Your task to perform on an android device: Go to sound settings Image 0: 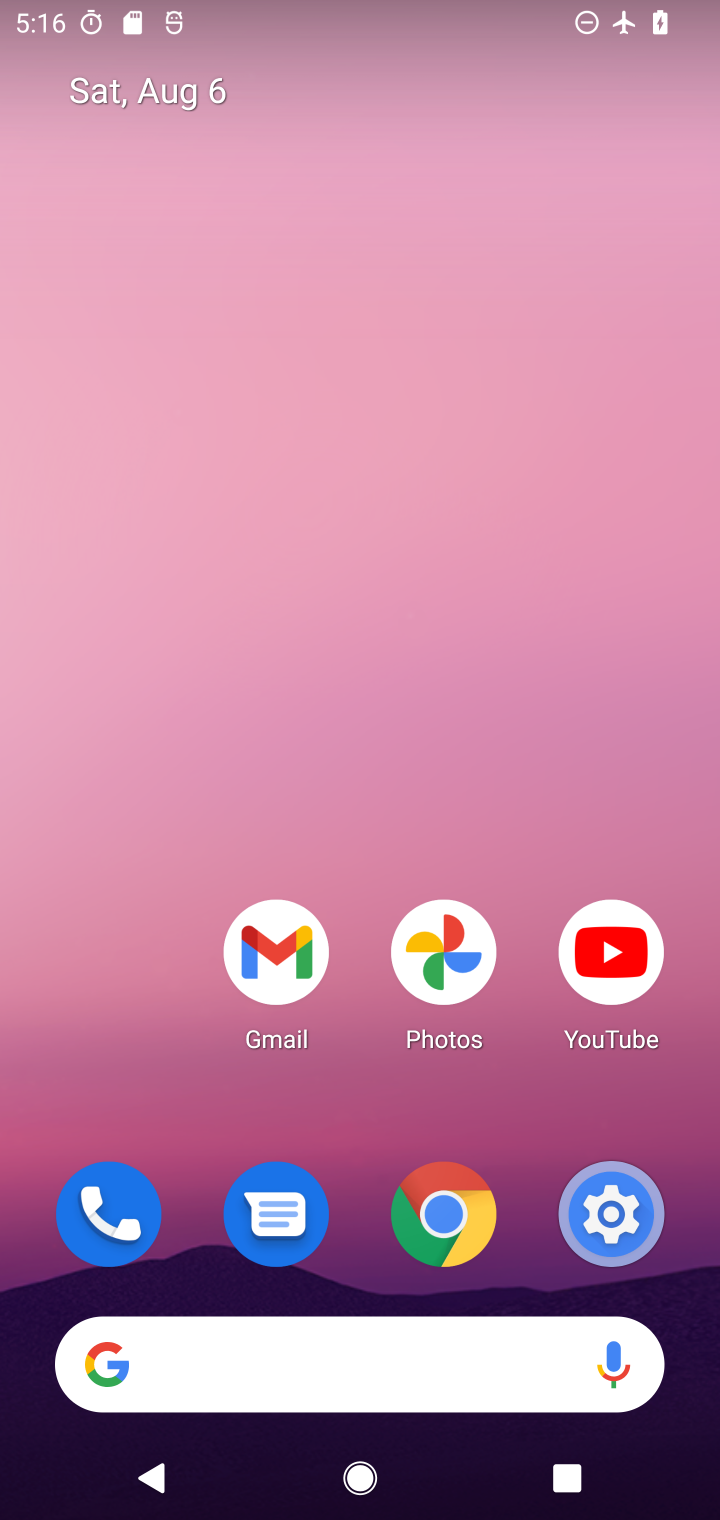
Step 0: click (590, 1253)
Your task to perform on an android device: Go to sound settings Image 1: 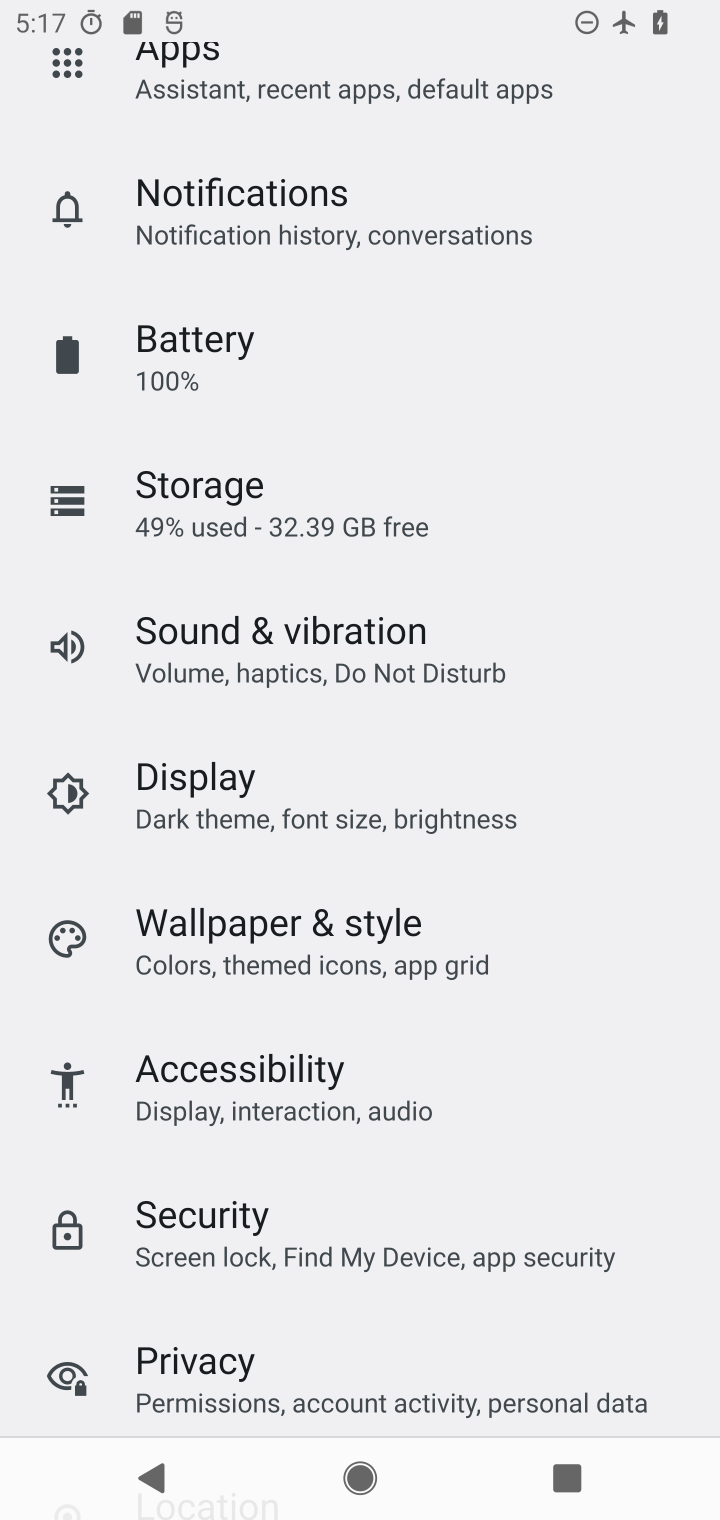
Step 1: drag from (374, 1165) to (377, 1242)
Your task to perform on an android device: Go to sound settings Image 2: 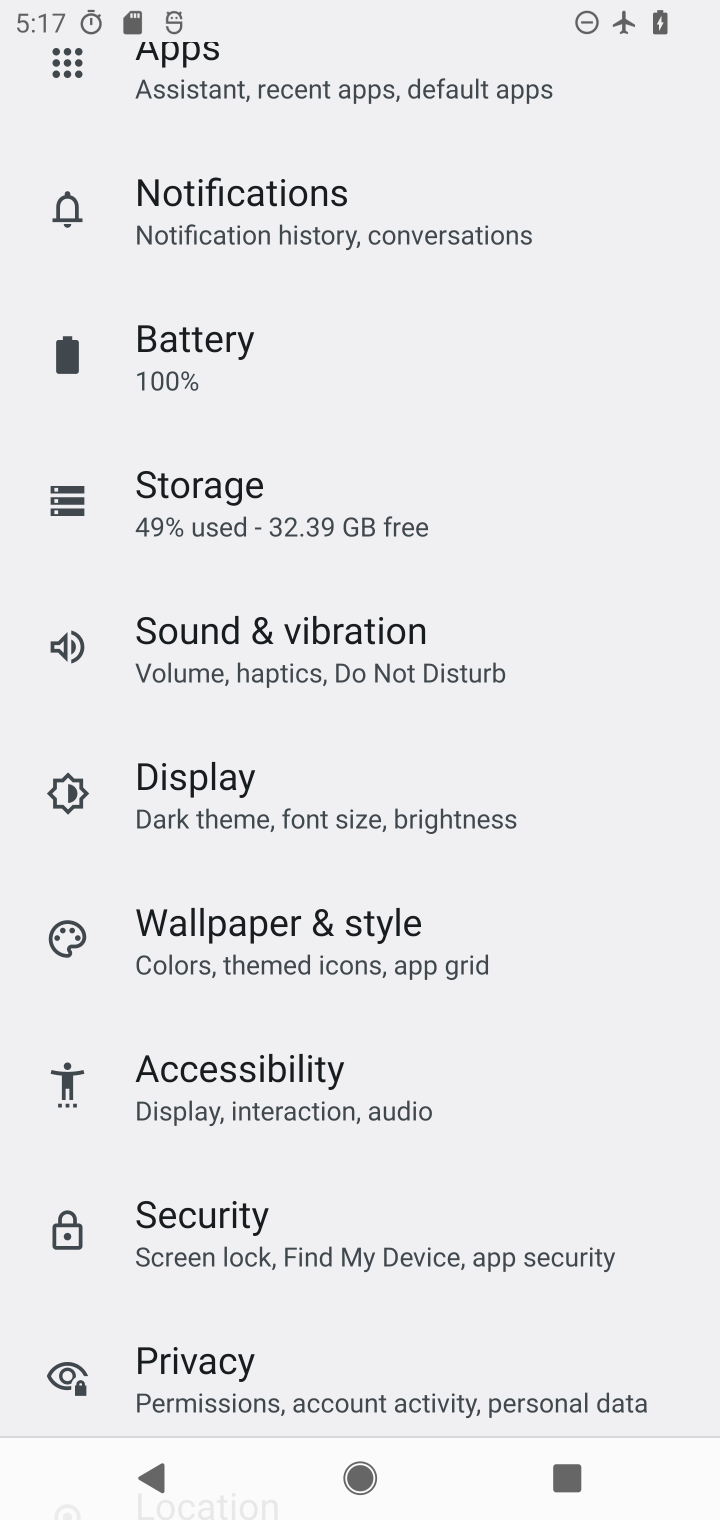
Step 2: drag from (411, 1029) to (413, 1464)
Your task to perform on an android device: Go to sound settings Image 3: 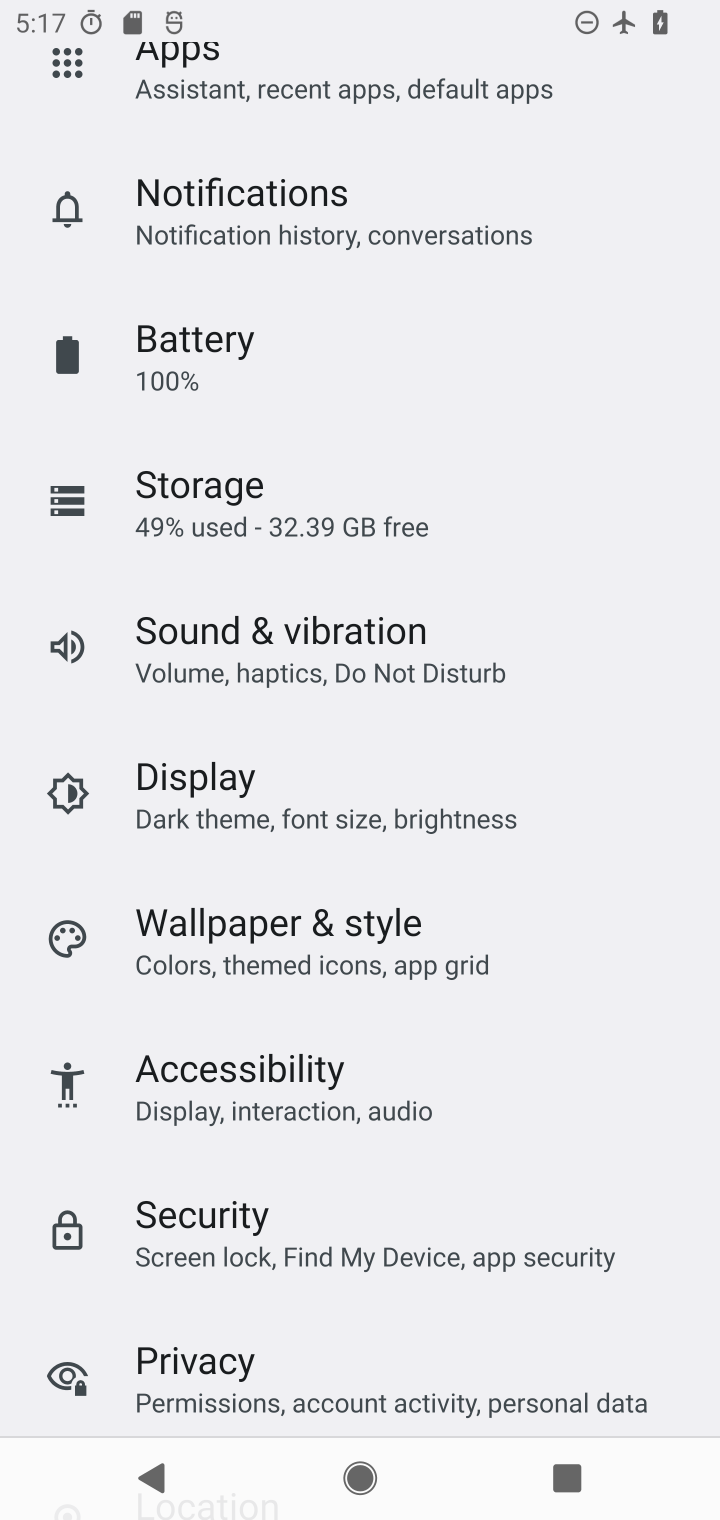
Step 3: drag from (405, 767) to (407, 1217)
Your task to perform on an android device: Go to sound settings Image 4: 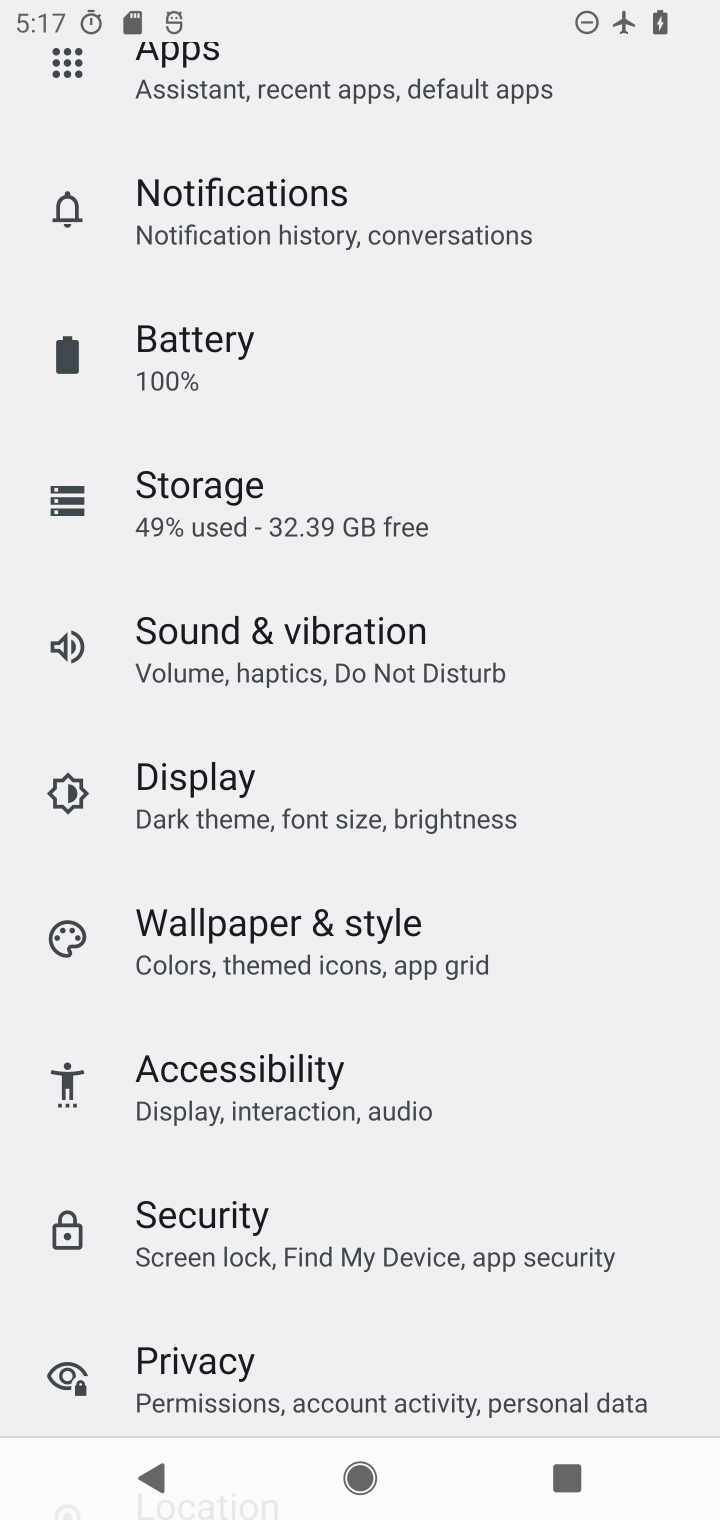
Step 4: drag from (330, 381) to (233, 1473)
Your task to perform on an android device: Go to sound settings Image 5: 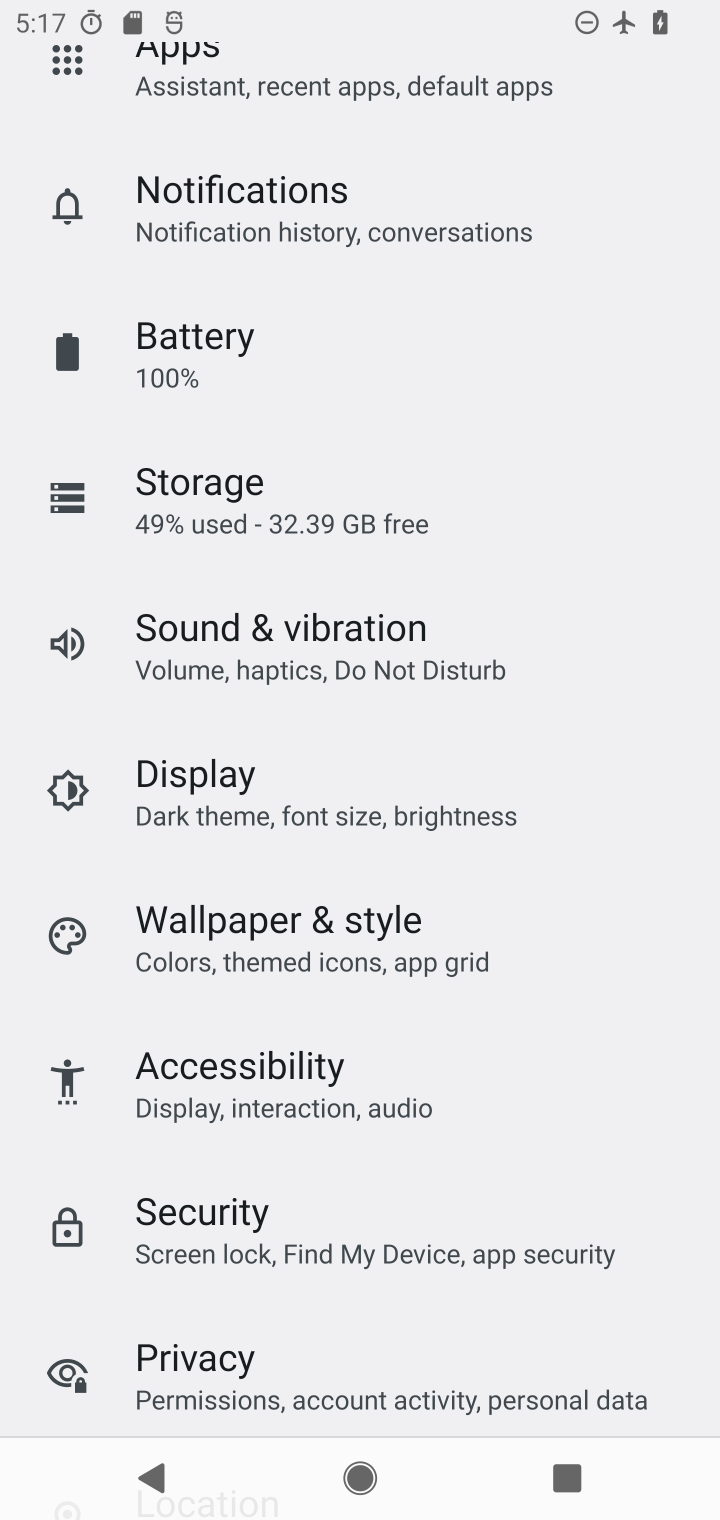
Step 5: drag from (300, 433) to (313, 737)
Your task to perform on an android device: Go to sound settings Image 6: 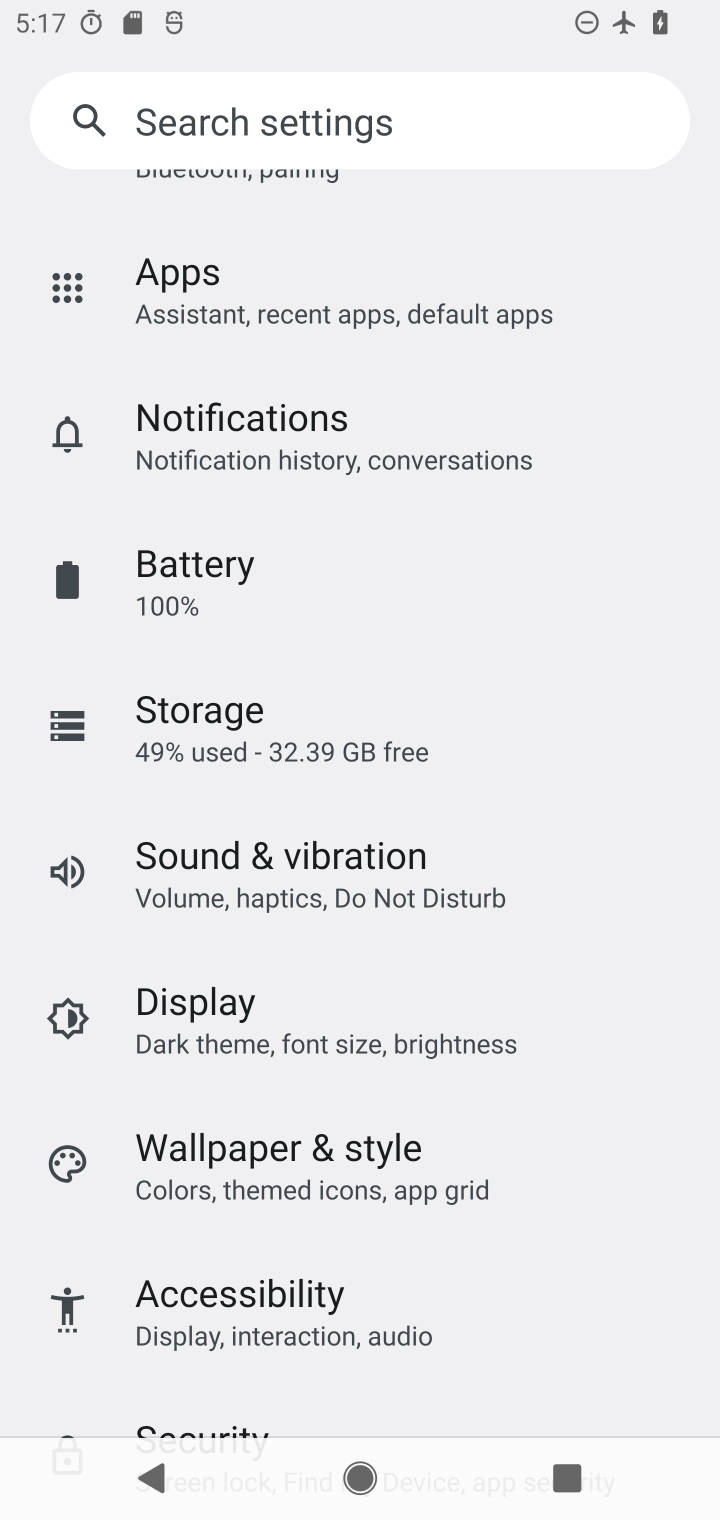
Step 6: click (243, 889)
Your task to perform on an android device: Go to sound settings Image 7: 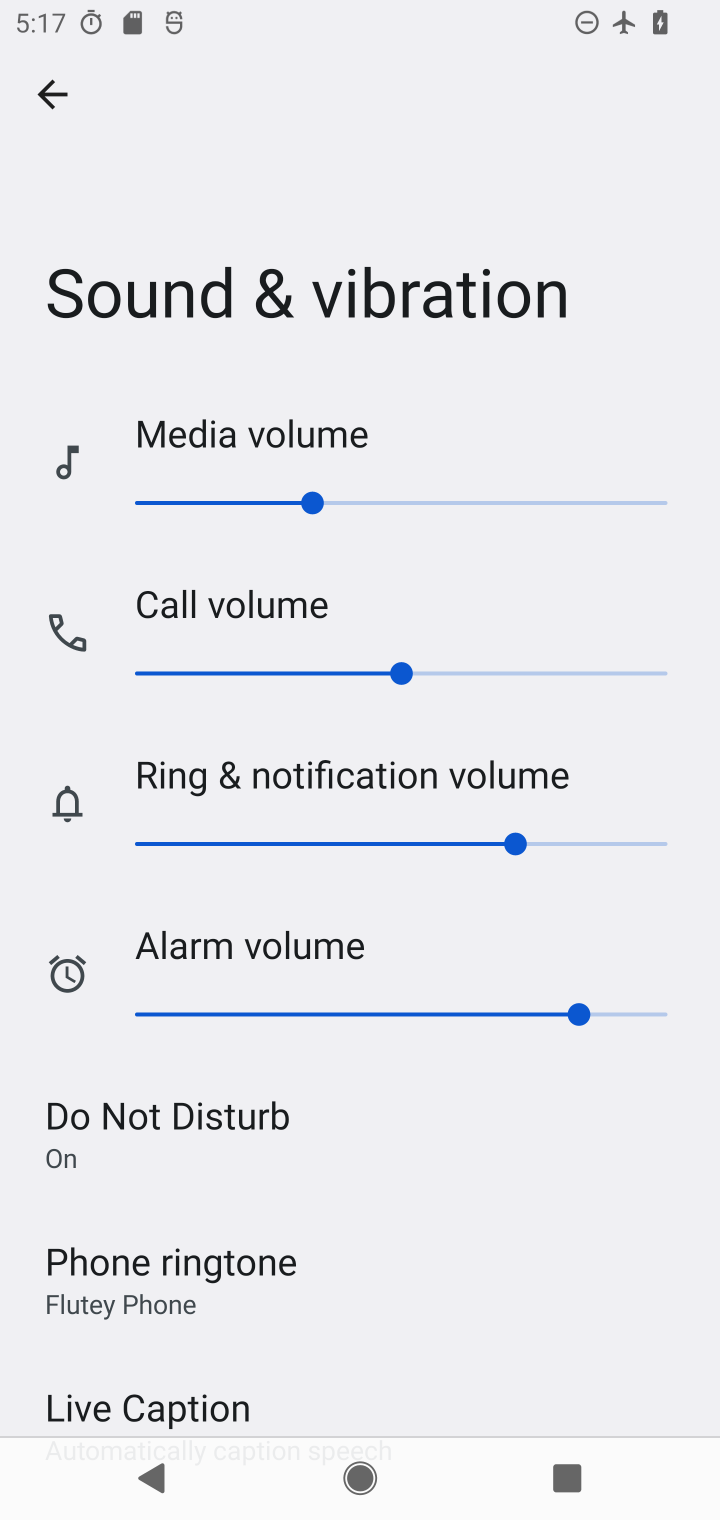
Step 7: task complete